Your task to perform on an android device: change timer sound Image 0: 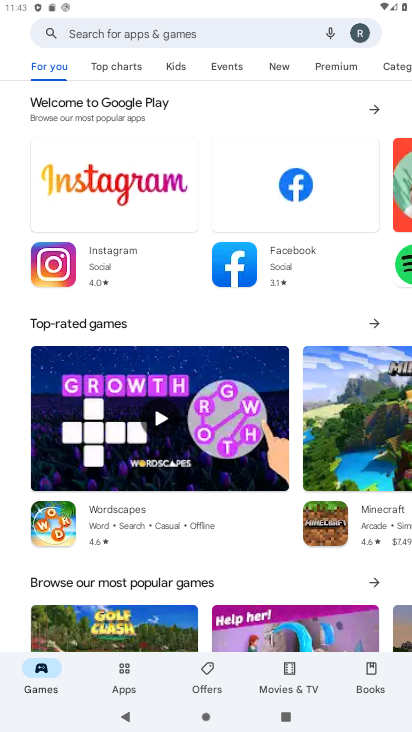
Step 0: press home button
Your task to perform on an android device: change timer sound Image 1: 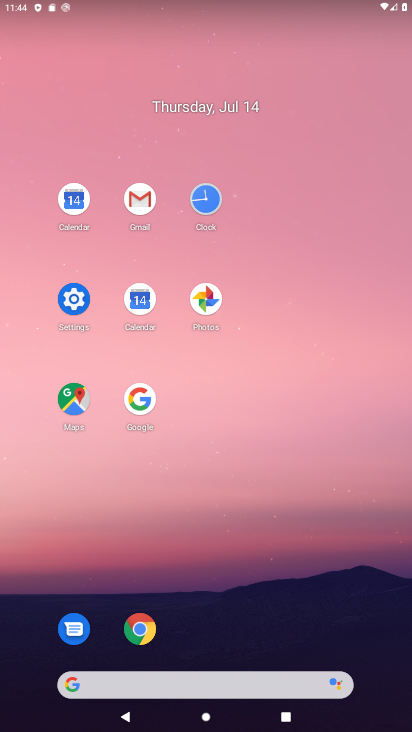
Step 1: click (213, 198)
Your task to perform on an android device: change timer sound Image 2: 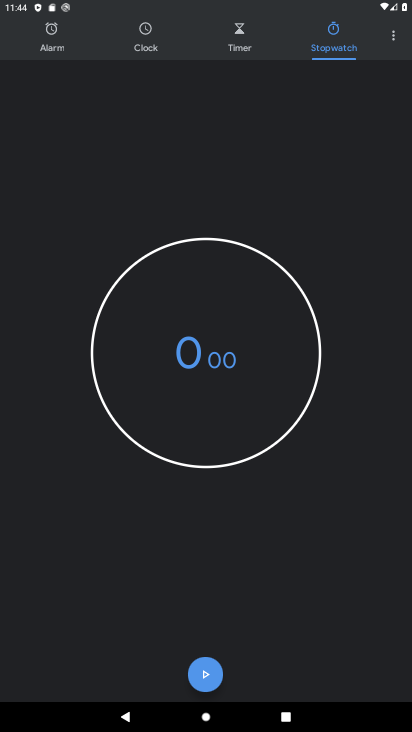
Step 2: click (394, 37)
Your task to perform on an android device: change timer sound Image 3: 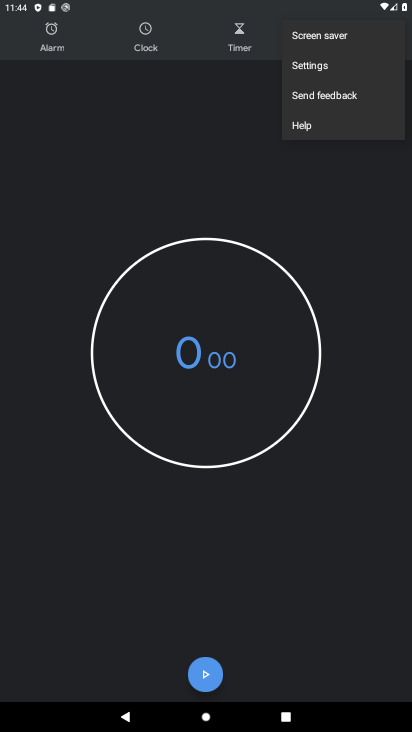
Step 3: click (324, 66)
Your task to perform on an android device: change timer sound Image 4: 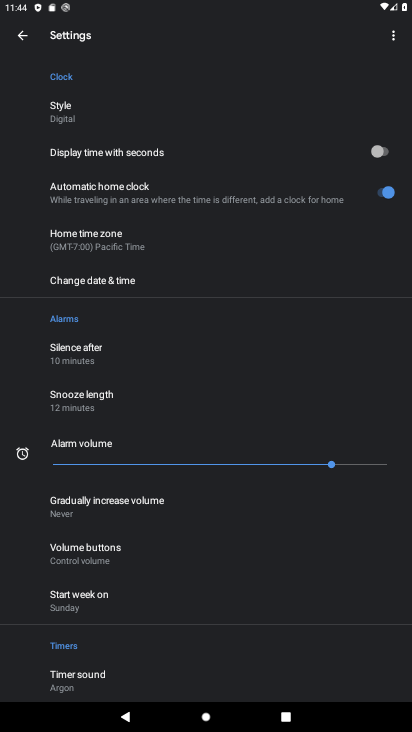
Step 4: drag from (194, 587) to (178, 238)
Your task to perform on an android device: change timer sound Image 5: 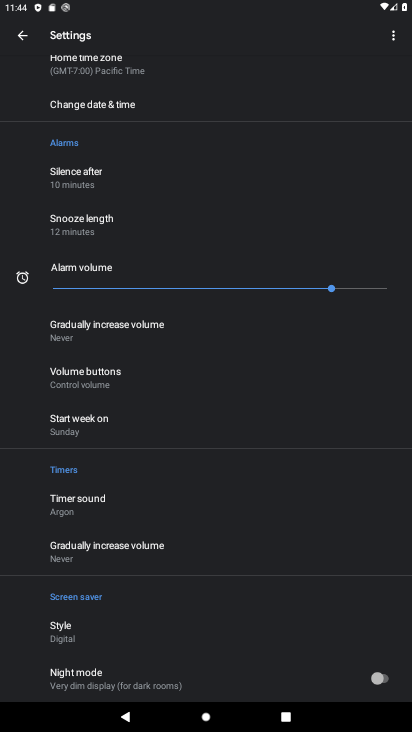
Step 5: click (151, 500)
Your task to perform on an android device: change timer sound Image 6: 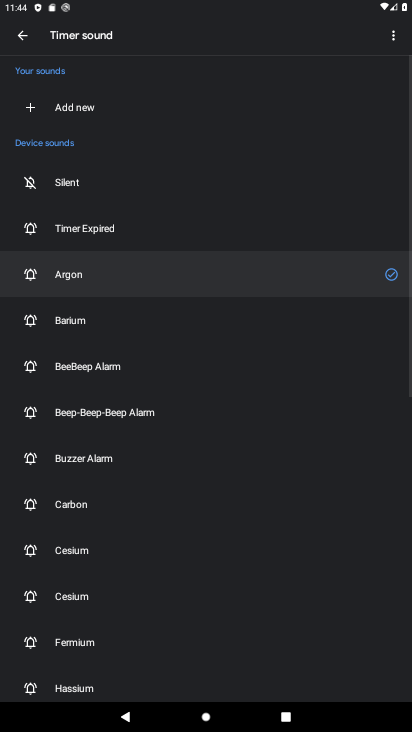
Step 6: click (51, 217)
Your task to perform on an android device: change timer sound Image 7: 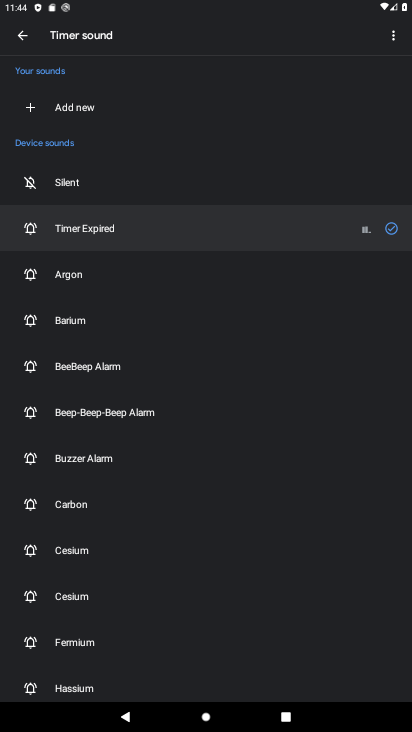
Step 7: task complete